Your task to perform on an android device: visit the assistant section in the google photos Image 0: 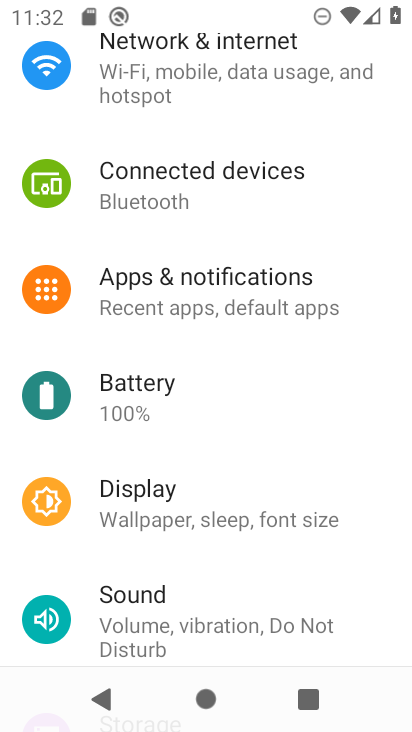
Step 0: press home button
Your task to perform on an android device: visit the assistant section in the google photos Image 1: 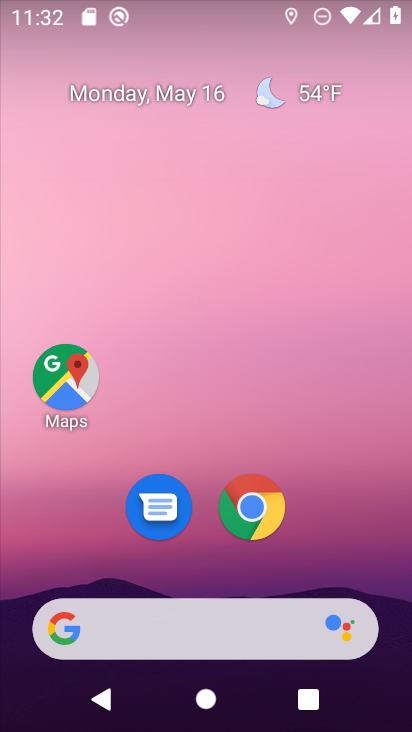
Step 1: drag from (369, 556) to (273, 124)
Your task to perform on an android device: visit the assistant section in the google photos Image 2: 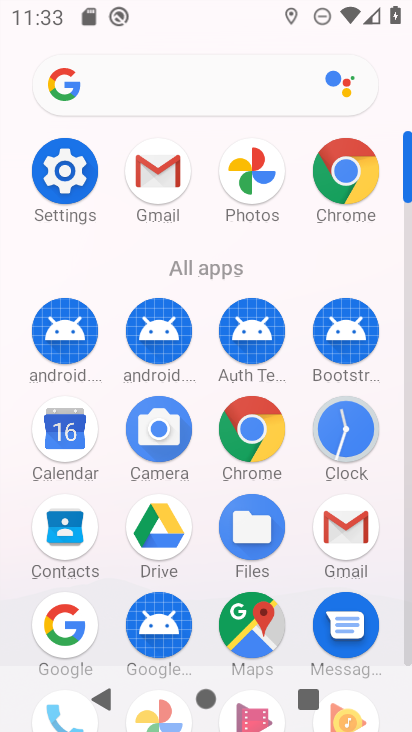
Step 2: click (262, 160)
Your task to perform on an android device: visit the assistant section in the google photos Image 3: 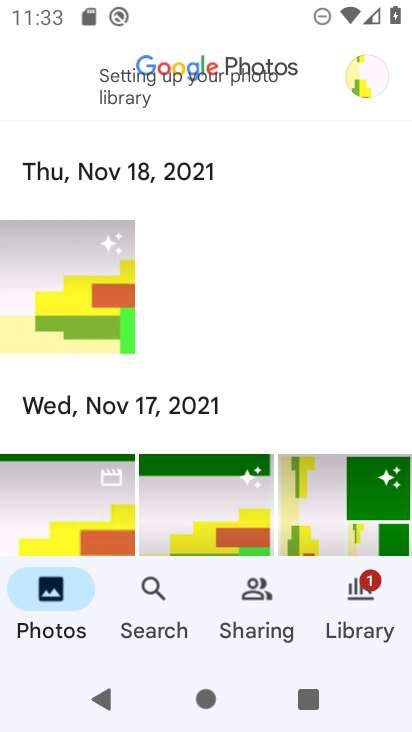
Step 3: task complete